Your task to perform on an android device: turn notification dots off Image 0: 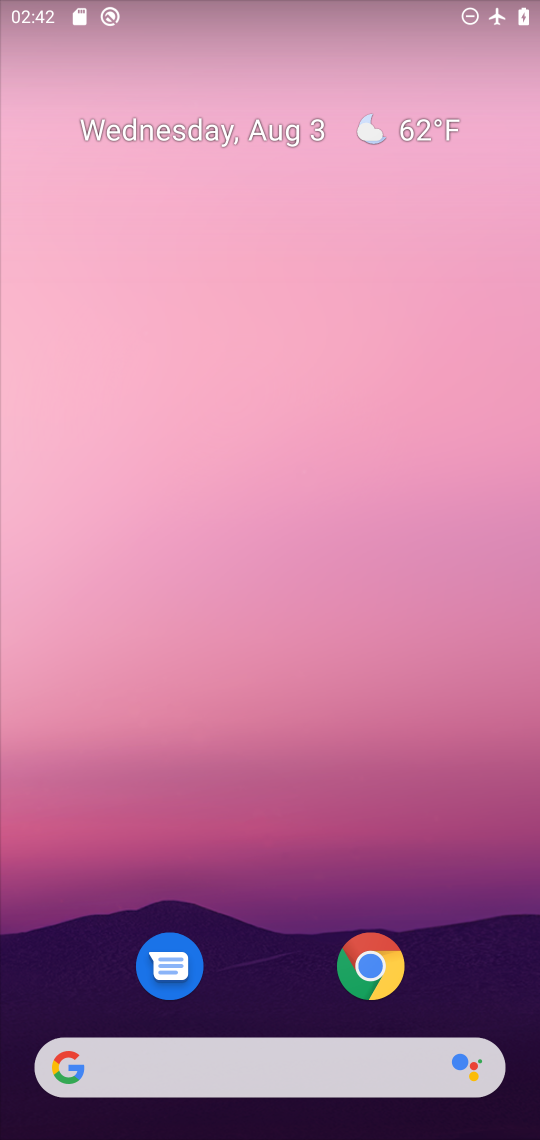
Step 0: drag from (269, 1007) to (230, 358)
Your task to perform on an android device: turn notification dots off Image 1: 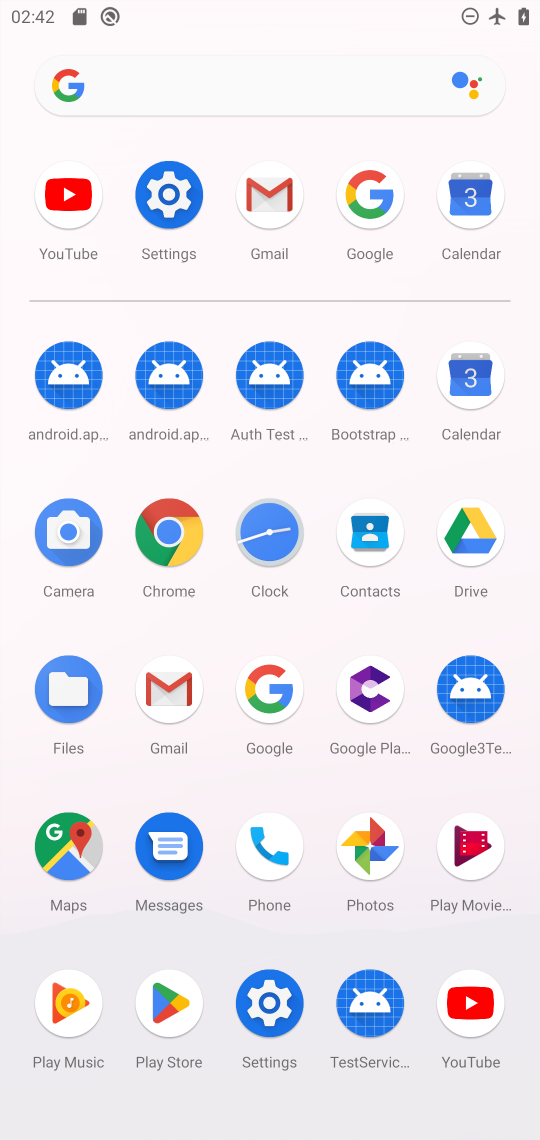
Step 1: click (178, 195)
Your task to perform on an android device: turn notification dots off Image 2: 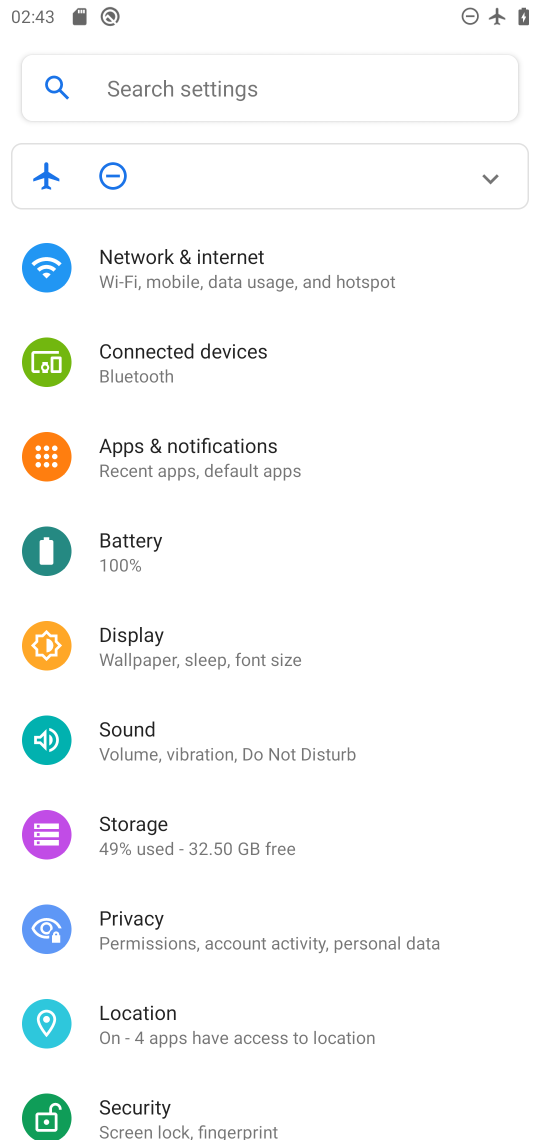
Step 2: click (252, 431)
Your task to perform on an android device: turn notification dots off Image 3: 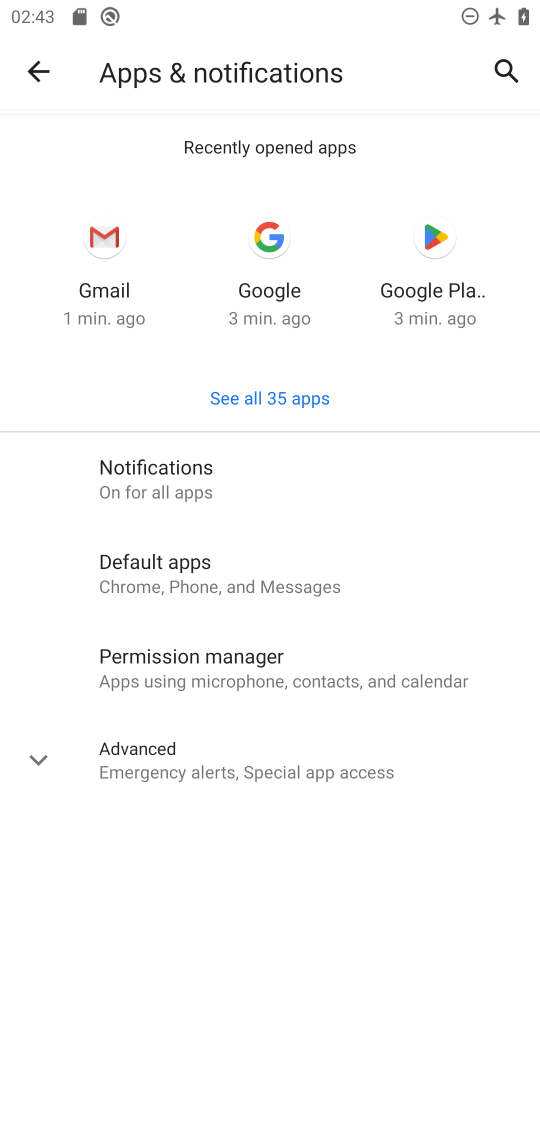
Step 3: click (153, 491)
Your task to perform on an android device: turn notification dots off Image 4: 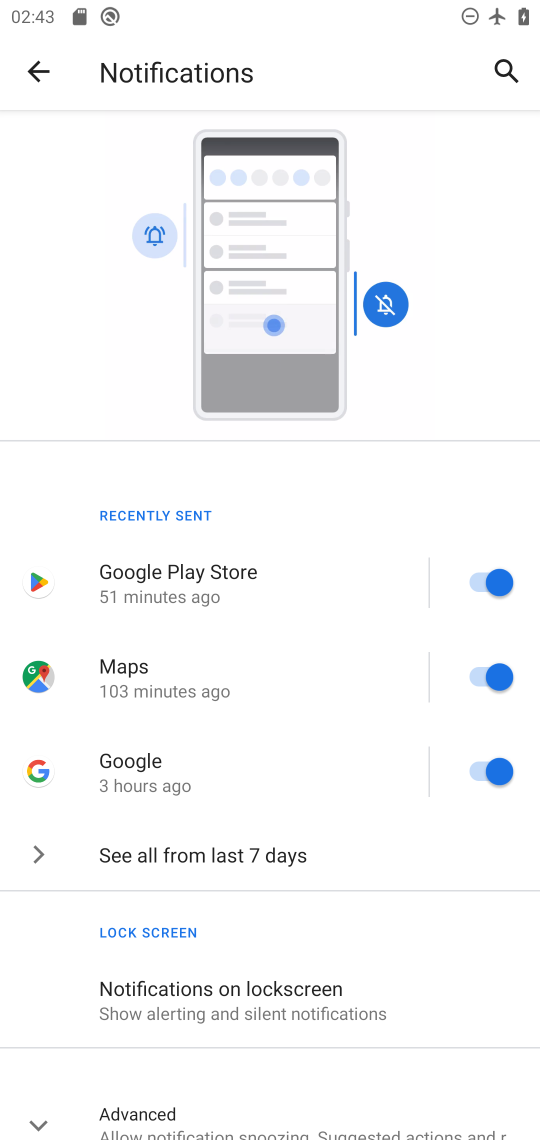
Step 4: drag from (193, 1025) to (189, 562)
Your task to perform on an android device: turn notification dots off Image 5: 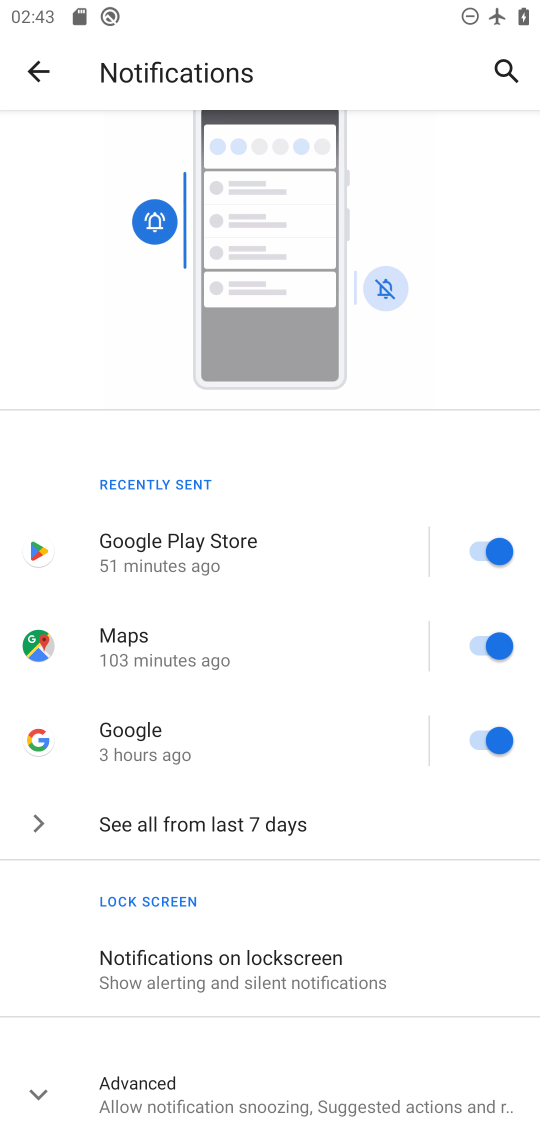
Step 5: click (184, 1079)
Your task to perform on an android device: turn notification dots off Image 6: 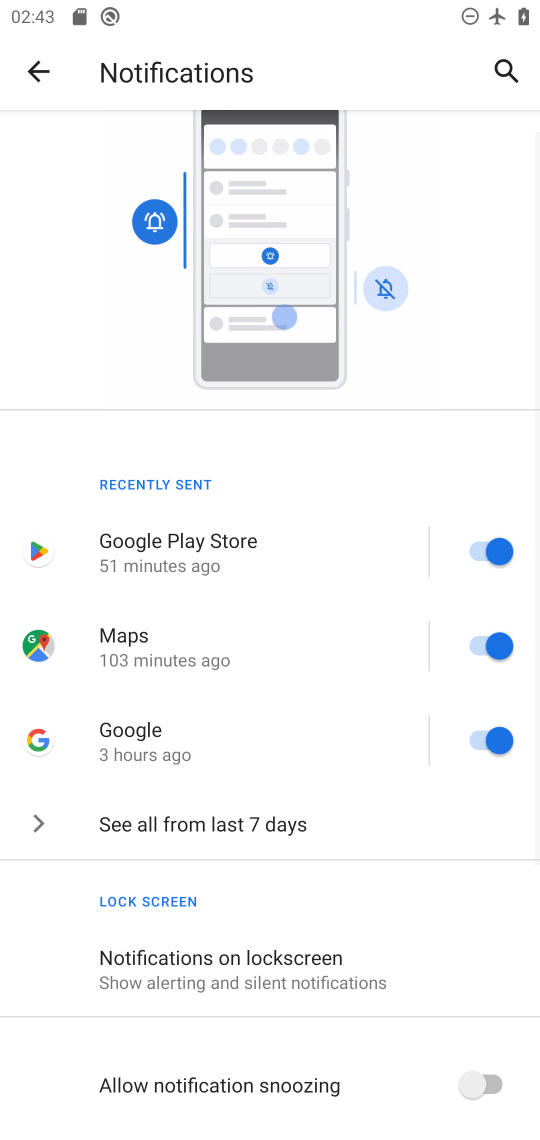
Step 6: task complete